Your task to perform on an android device: remove spam from my inbox in the gmail app Image 0: 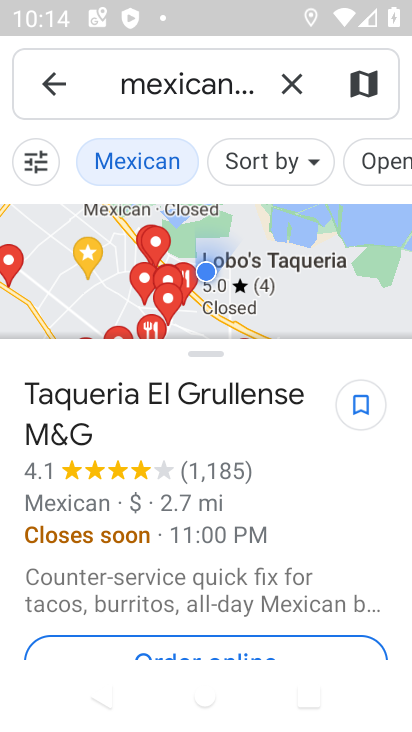
Step 0: press home button
Your task to perform on an android device: remove spam from my inbox in the gmail app Image 1: 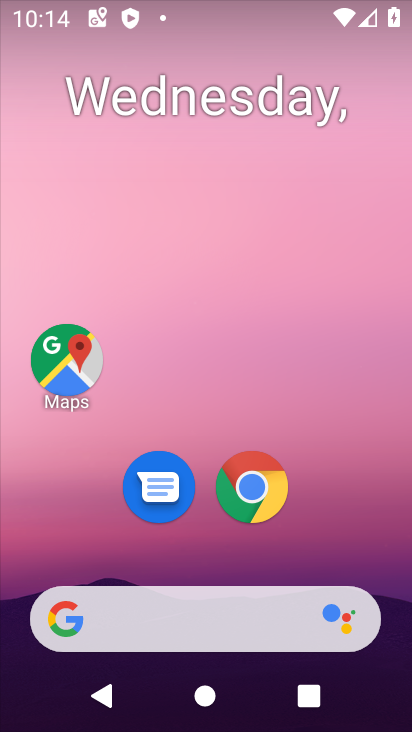
Step 1: drag from (237, 614) to (397, 34)
Your task to perform on an android device: remove spam from my inbox in the gmail app Image 2: 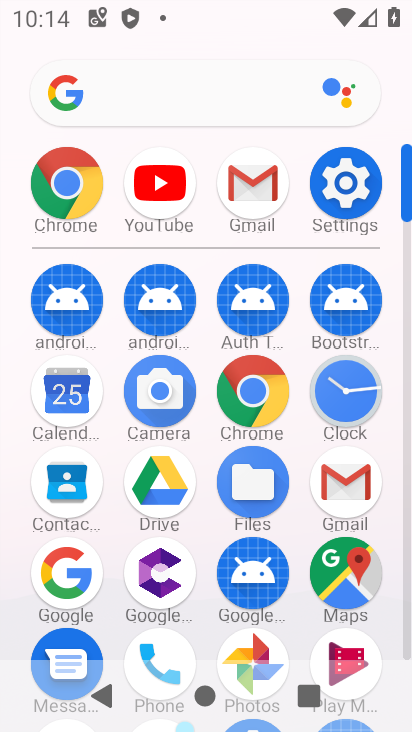
Step 2: click (258, 191)
Your task to perform on an android device: remove spam from my inbox in the gmail app Image 3: 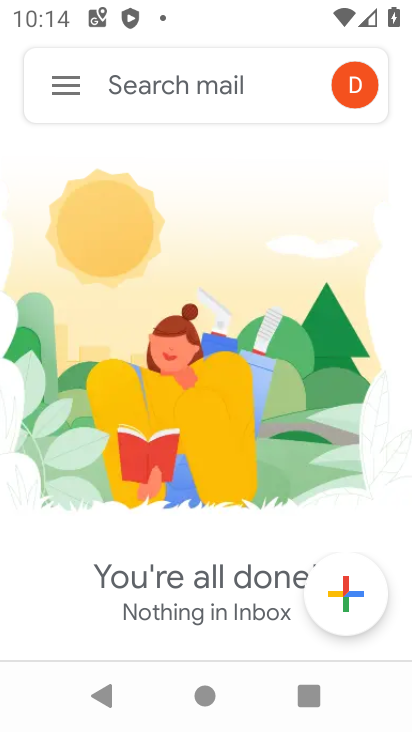
Step 3: click (61, 94)
Your task to perform on an android device: remove spam from my inbox in the gmail app Image 4: 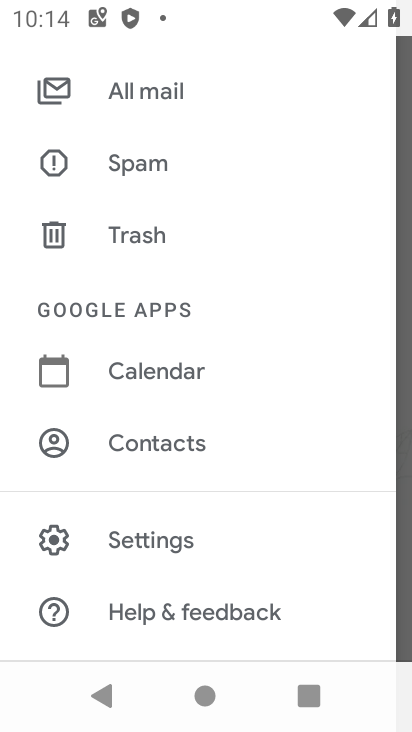
Step 4: click (218, 158)
Your task to perform on an android device: remove spam from my inbox in the gmail app Image 5: 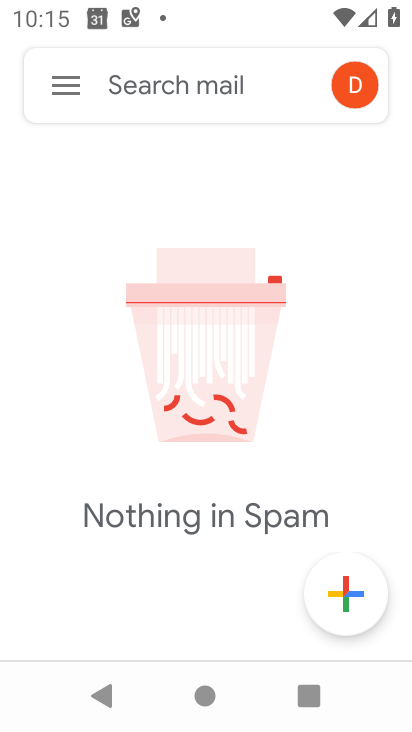
Step 5: task complete